Your task to perform on an android device: Search for sushi restaurants on Maps Image 0: 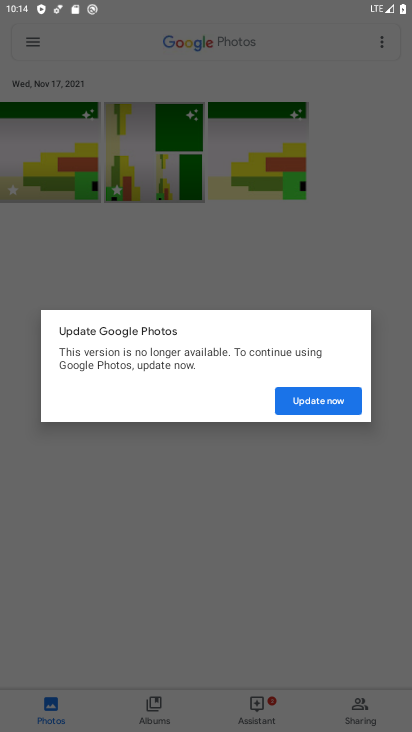
Step 0: press home button
Your task to perform on an android device: Search for sushi restaurants on Maps Image 1: 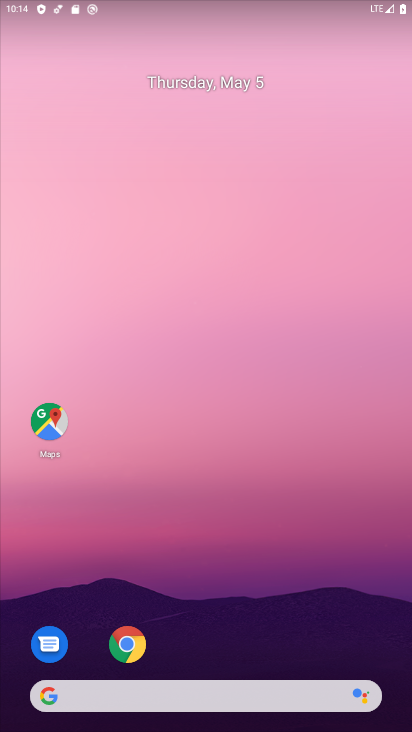
Step 1: click (50, 424)
Your task to perform on an android device: Search for sushi restaurants on Maps Image 2: 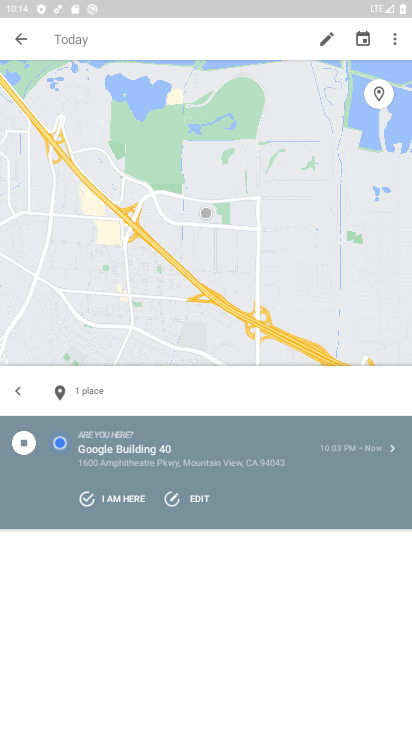
Step 2: click (12, 40)
Your task to perform on an android device: Search for sushi restaurants on Maps Image 3: 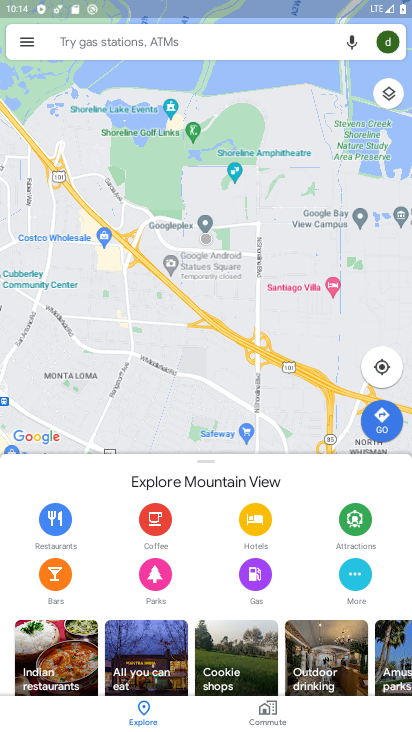
Step 3: click (248, 42)
Your task to perform on an android device: Search for sushi restaurants on Maps Image 4: 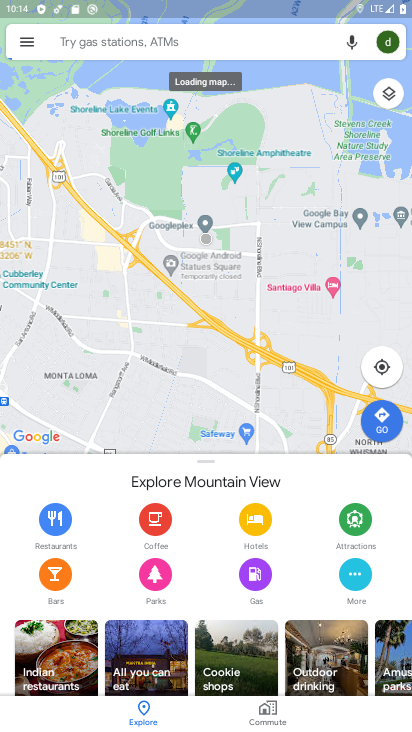
Step 4: click (248, 42)
Your task to perform on an android device: Search for sushi restaurants on Maps Image 5: 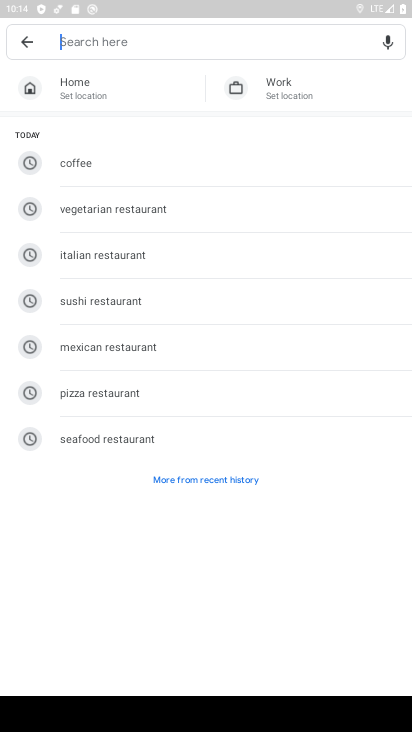
Step 5: click (93, 313)
Your task to perform on an android device: Search for sushi restaurants on Maps Image 6: 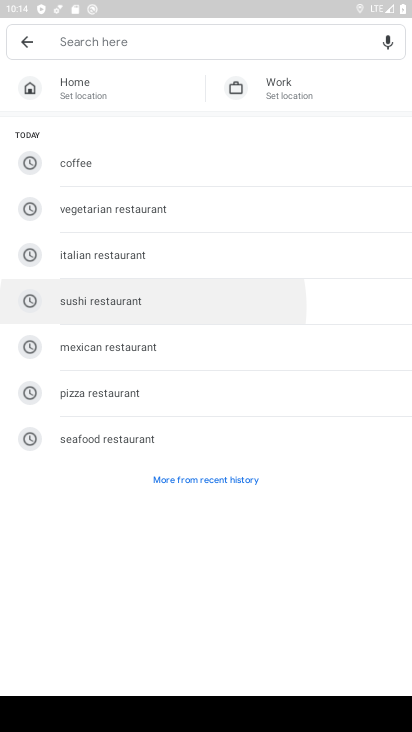
Step 6: click (93, 313)
Your task to perform on an android device: Search for sushi restaurants on Maps Image 7: 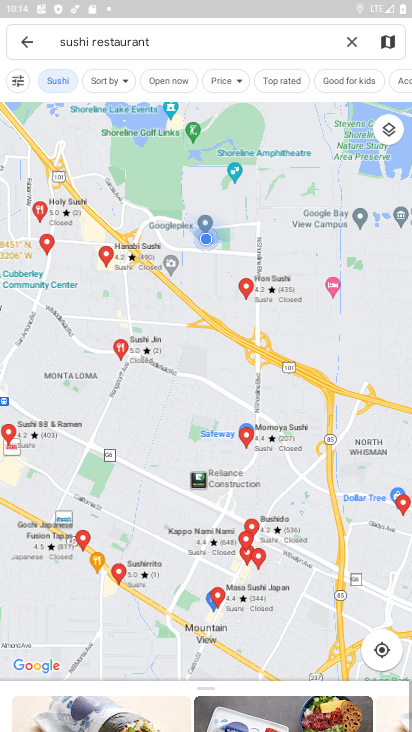
Step 7: task complete